Your task to perform on an android device: Turn on the flashlight Image 0: 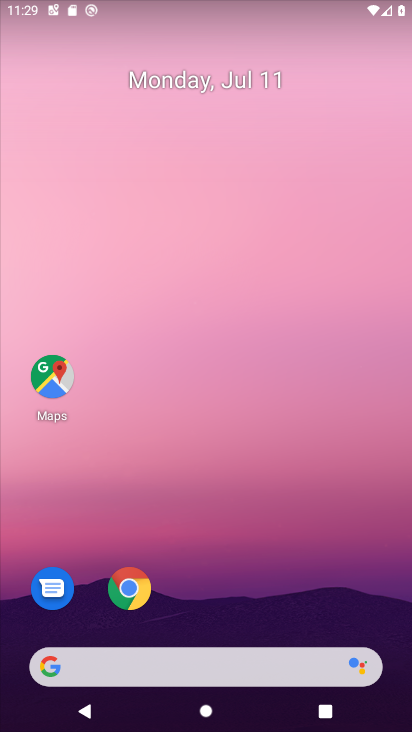
Step 0: drag from (246, 660) to (191, 238)
Your task to perform on an android device: Turn on the flashlight Image 1: 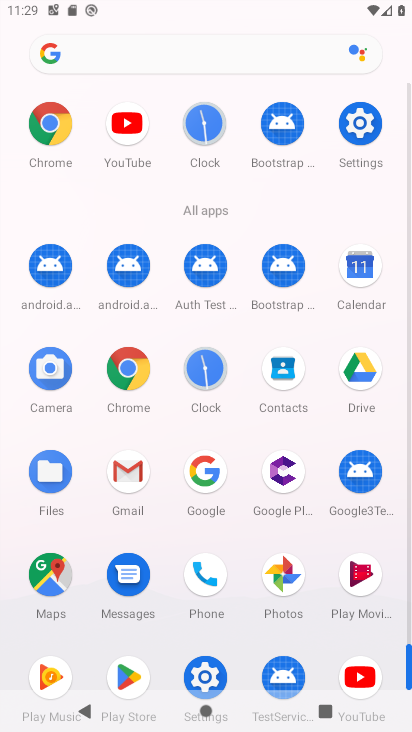
Step 1: task complete